Your task to perform on an android device: Open Google Chrome and click the shortcut for Amazon.com Image 0: 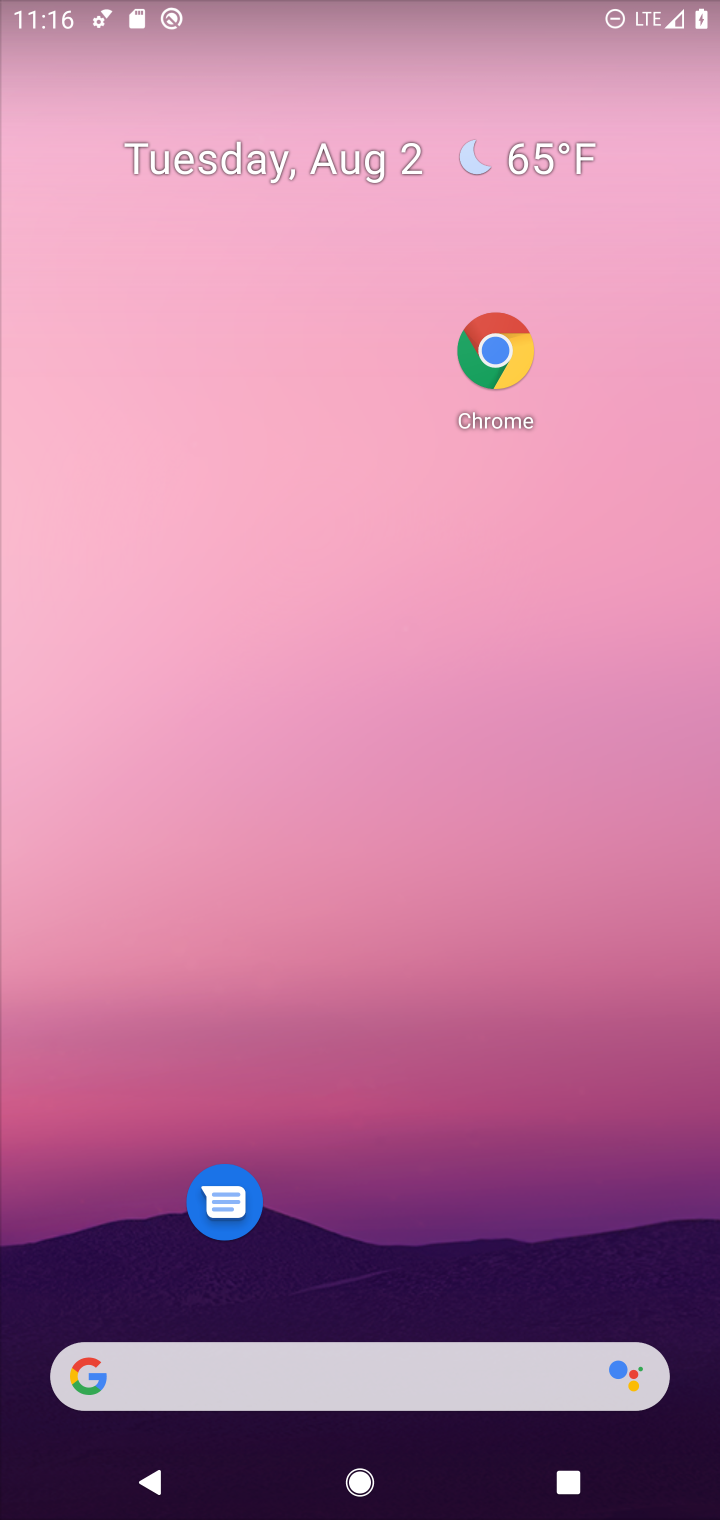
Step 0: click (513, 368)
Your task to perform on an android device: Open Google Chrome and click the shortcut for Amazon.com Image 1: 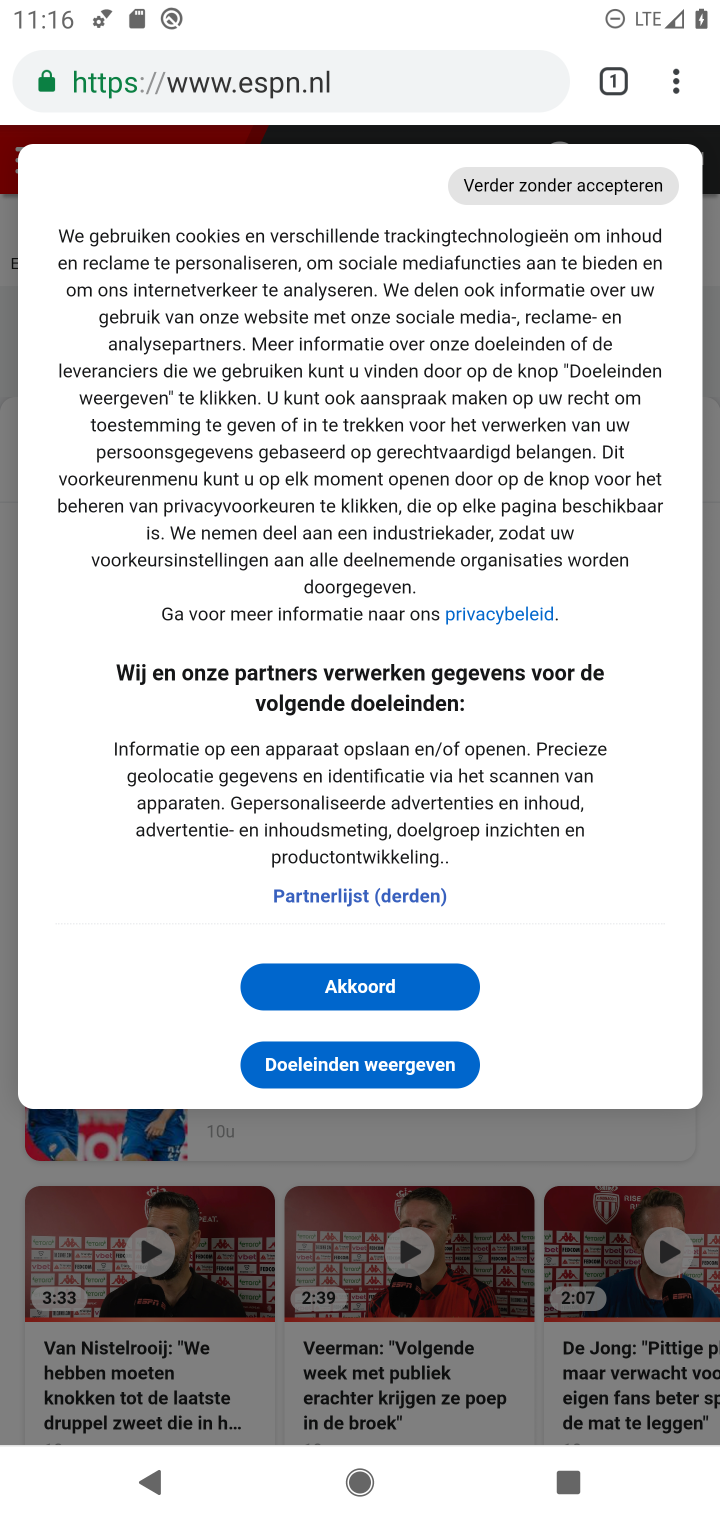
Step 1: drag from (676, 83) to (408, 164)
Your task to perform on an android device: Open Google Chrome and click the shortcut for Amazon.com Image 2: 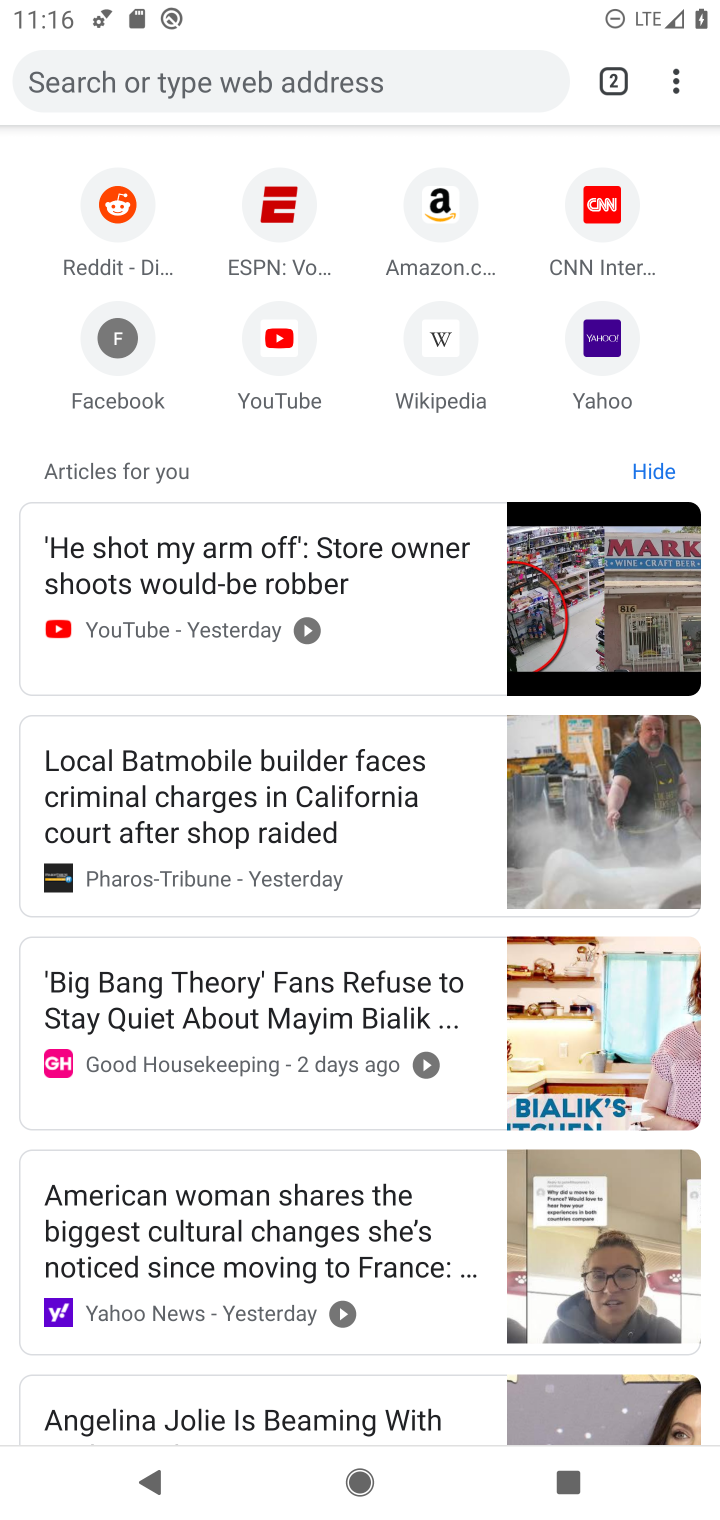
Step 2: click (437, 216)
Your task to perform on an android device: Open Google Chrome and click the shortcut for Amazon.com Image 3: 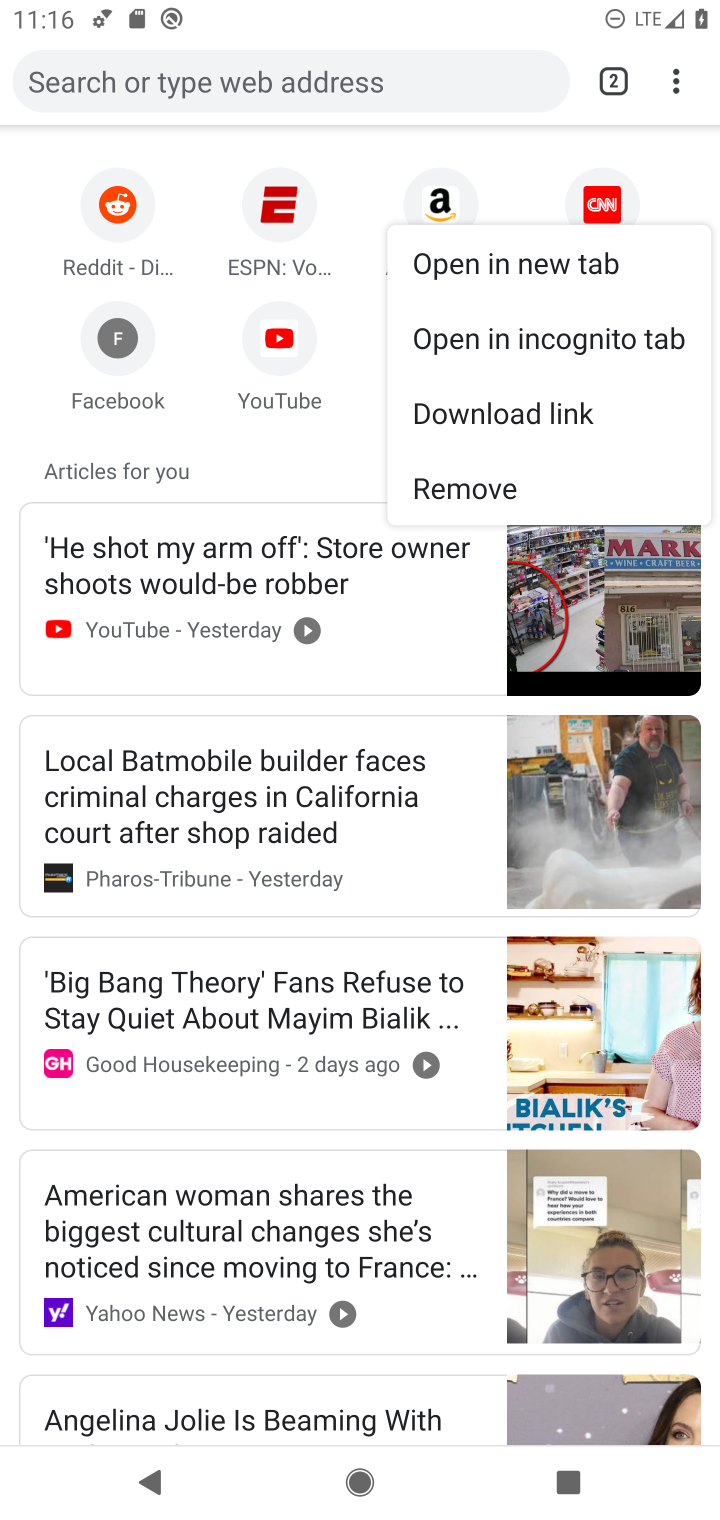
Step 3: click (440, 199)
Your task to perform on an android device: Open Google Chrome and click the shortcut for Amazon.com Image 4: 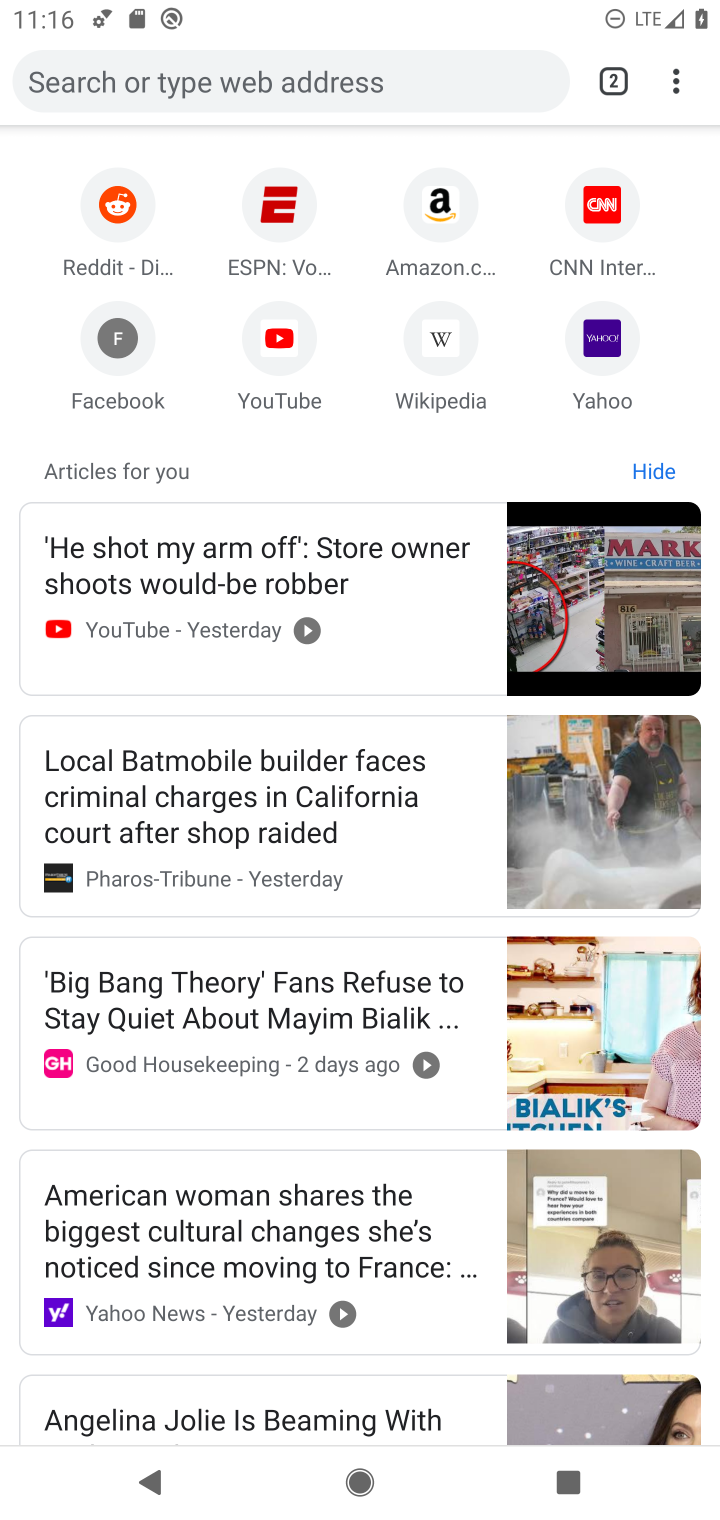
Step 4: click (440, 218)
Your task to perform on an android device: Open Google Chrome and click the shortcut for Amazon.com Image 5: 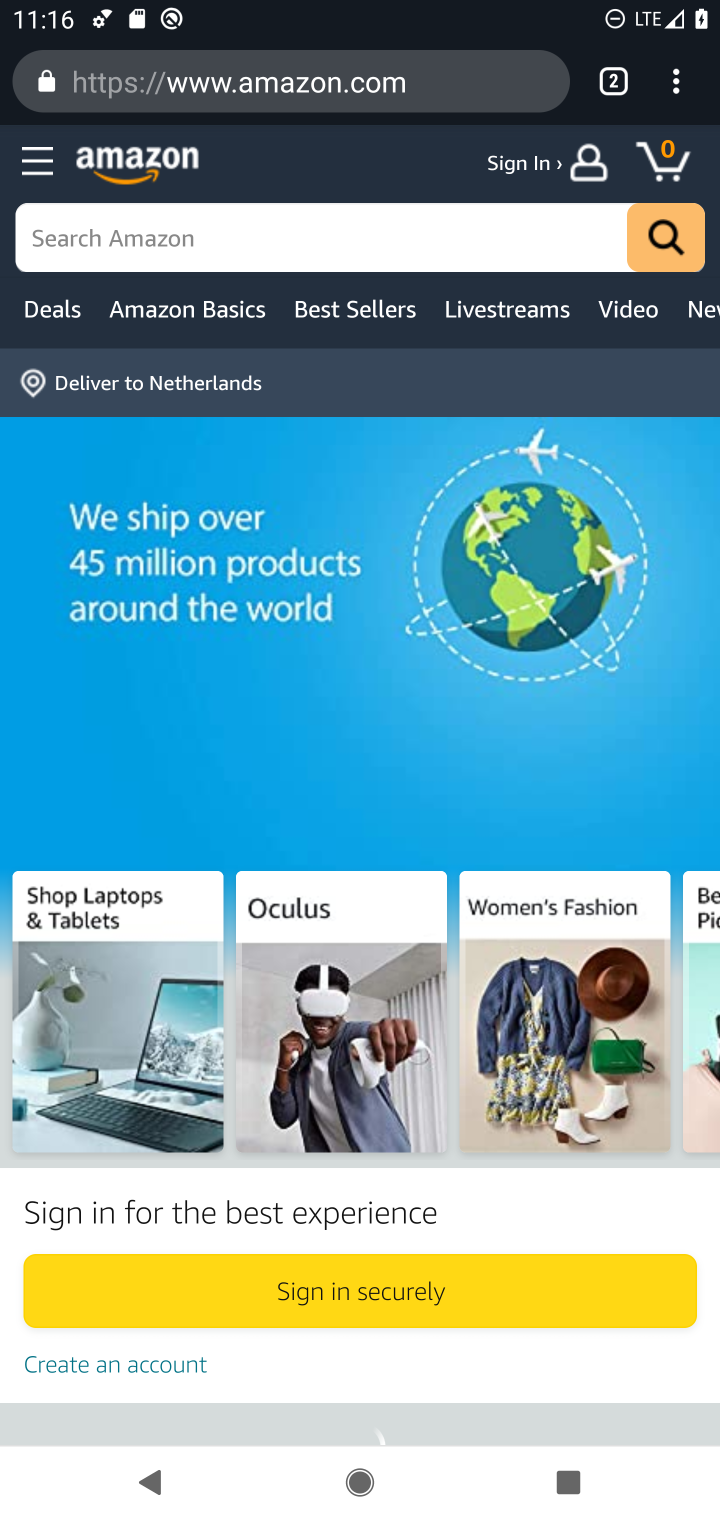
Step 5: task complete